Your task to perform on an android device: Open Maps and search for coffee Image 0: 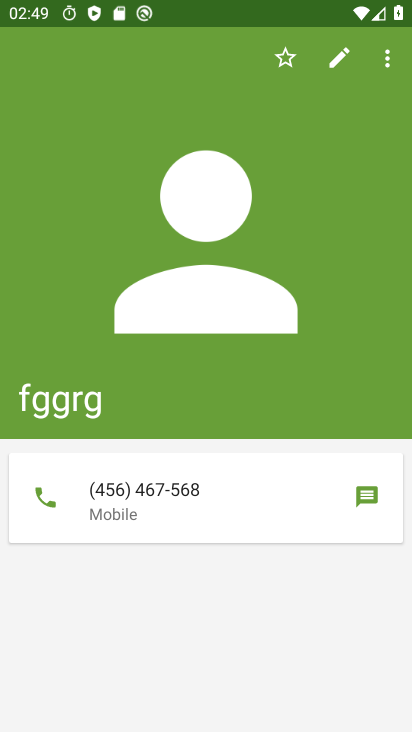
Step 0: press home button
Your task to perform on an android device: Open Maps and search for coffee Image 1: 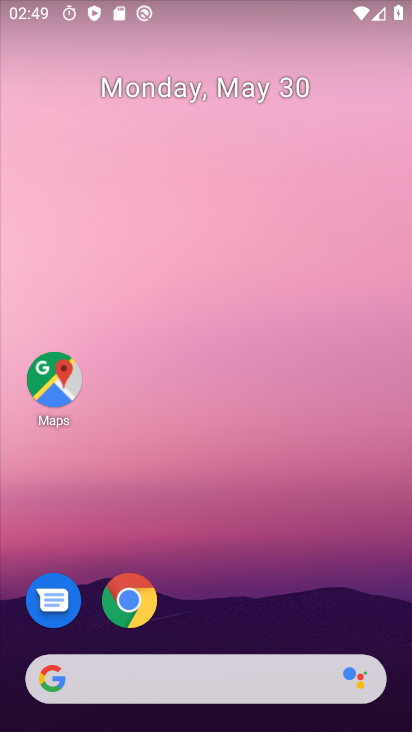
Step 1: click (61, 387)
Your task to perform on an android device: Open Maps and search for coffee Image 2: 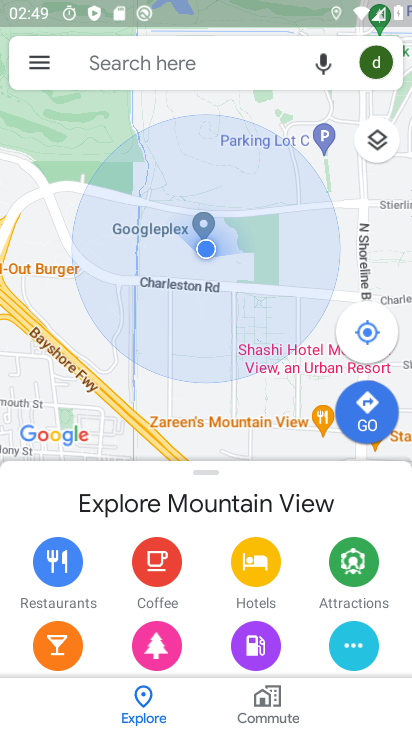
Step 2: click (102, 55)
Your task to perform on an android device: Open Maps and search for coffee Image 3: 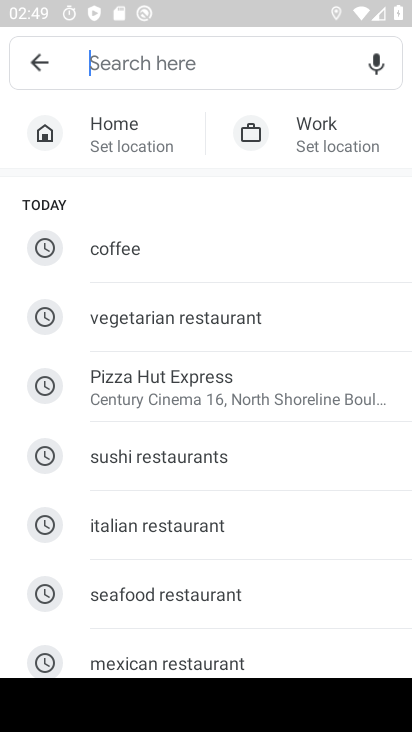
Step 3: click (114, 257)
Your task to perform on an android device: Open Maps and search for coffee Image 4: 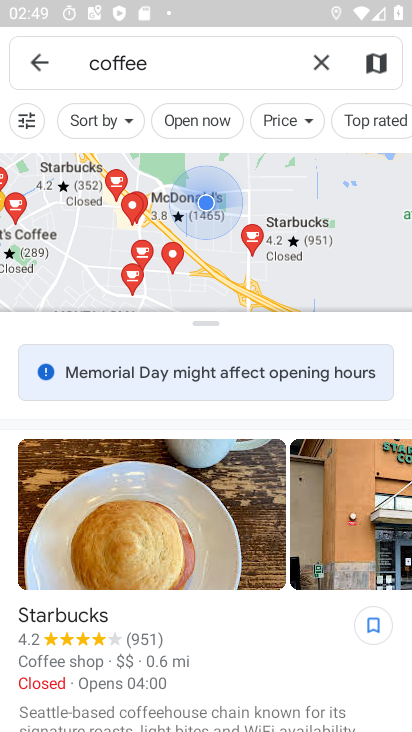
Step 4: task complete